Your task to perform on an android device: open device folders in google photos Image 0: 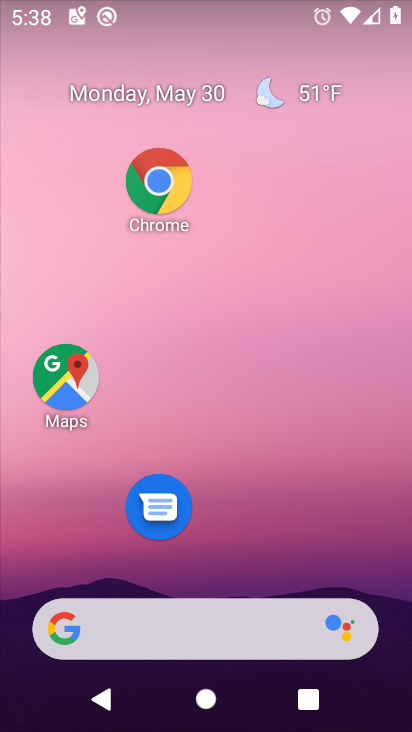
Step 0: drag from (314, 570) to (126, 50)
Your task to perform on an android device: open device folders in google photos Image 1: 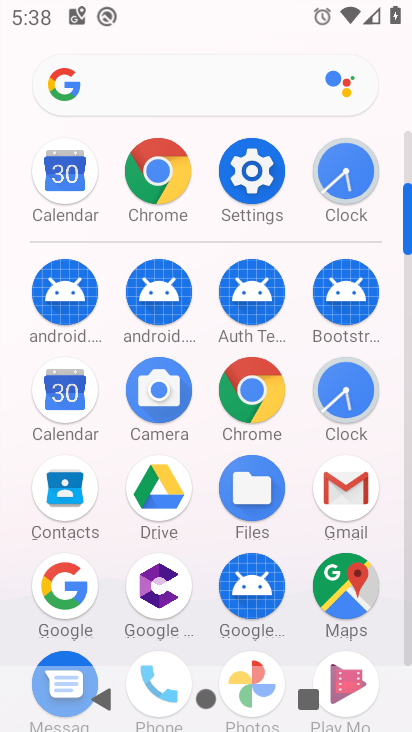
Step 1: click (410, 627)
Your task to perform on an android device: open device folders in google photos Image 2: 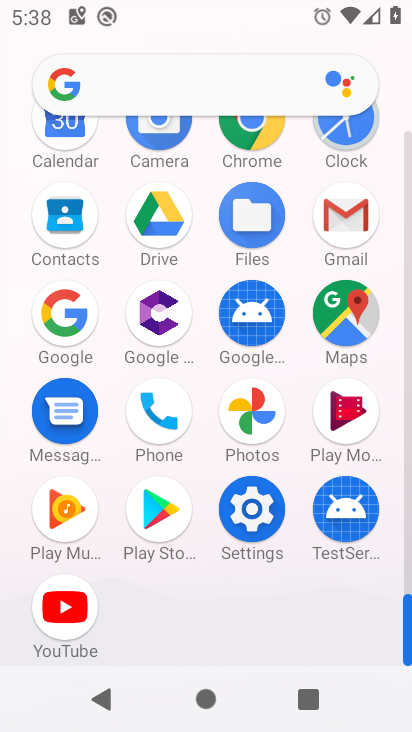
Step 2: click (259, 447)
Your task to perform on an android device: open device folders in google photos Image 3: 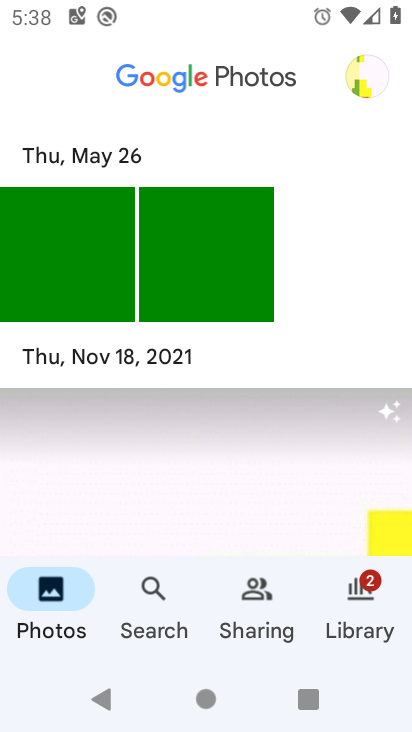
Step 3: click (342, 74)
Your task to perform on an android device: open device folders in google photos Image 4: 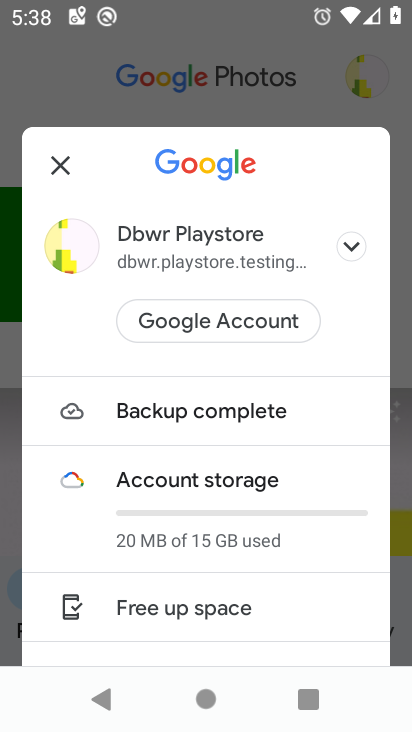
Step 4: click (249, 396)
Your task to perform on an android device: open device folders in google photos Image 5: 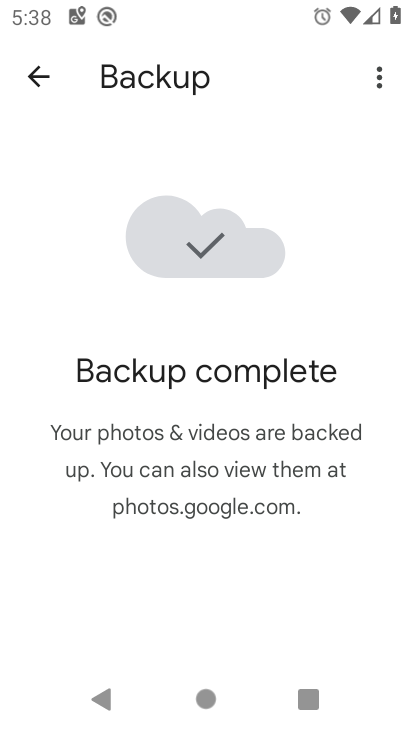
Step 5: task complete